Your task to perform on an android device: Open settings Image 0: 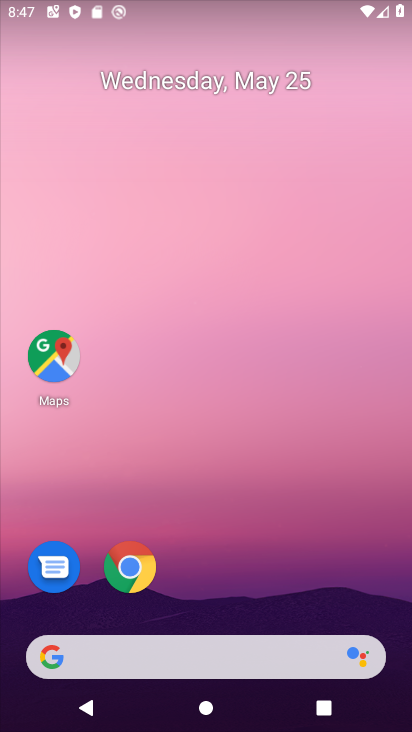
Step 0: drag from (230, 552) to (284, 60)
Your task to perform on an android device: Open settings Image 1: 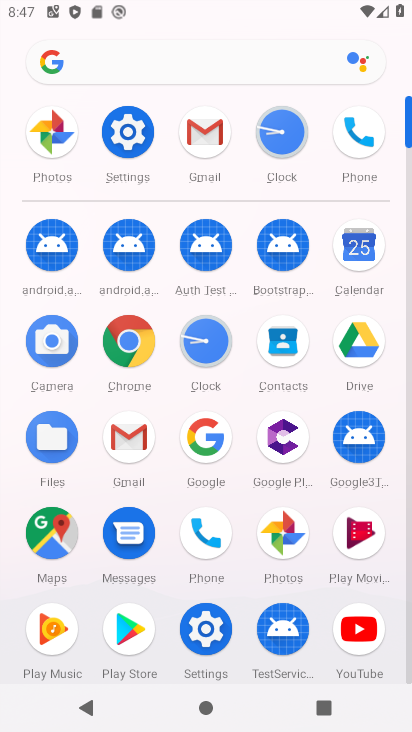
Step 1: click (126, 135)
Your task to perform on an android device: Open settings Image 2: 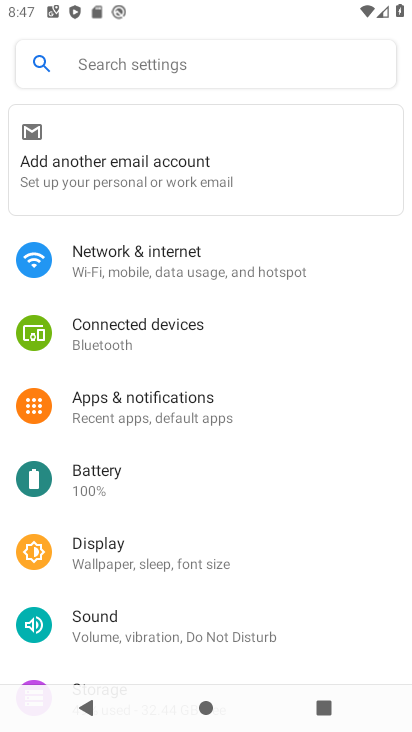
Step 2: task complete